Your task to perform on an android device: choose inbox layout in the gmail app Image 0: 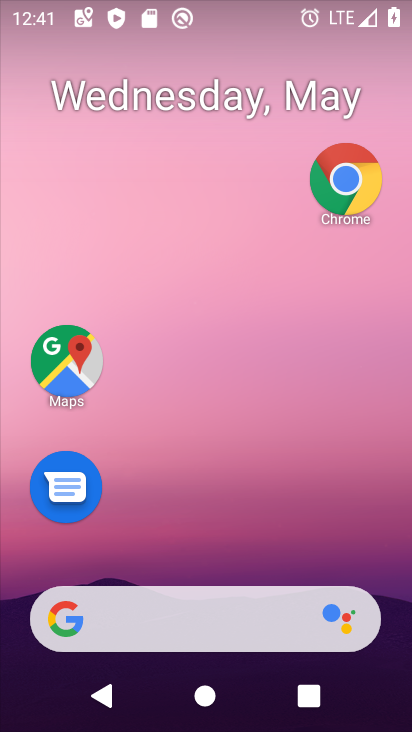
Step 0: click (249, 79)
Your task to perform on an android device: choose inbox layout in the gmail app Image 1: 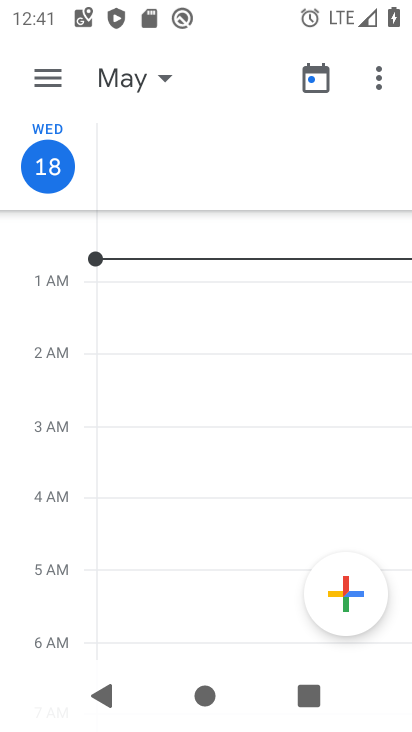
Step 1: drag from (215, 542) to (288, 109)
Your task to perform on an android device: choose inbox layout in the gmail app Image 2: 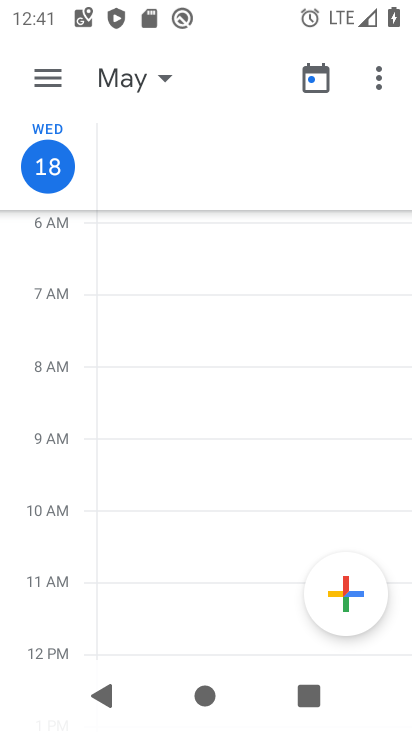
Step 2: press home button
Your task to perform on an android device: choose inbox layout in the gmail app Image 3: 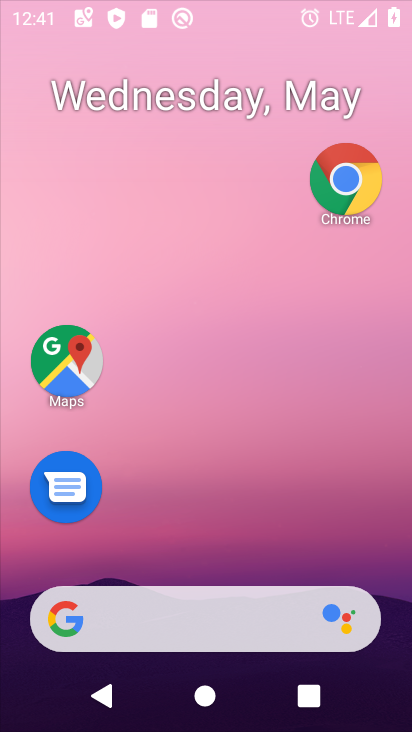
Step 3: drag from (198, 577) to (214, 75)
Your task to perform on an android device: choose inbox layout in the gmail app Image 4: 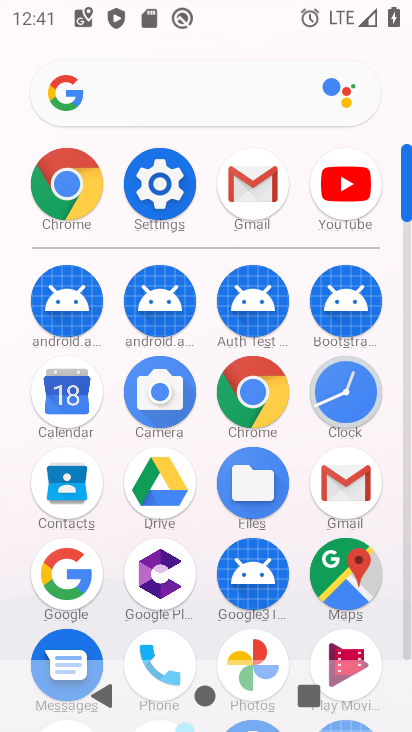
Step 4: click (341, 484)
Your task to perform on an android device: choose inbox layout in the gmail app Image 5: 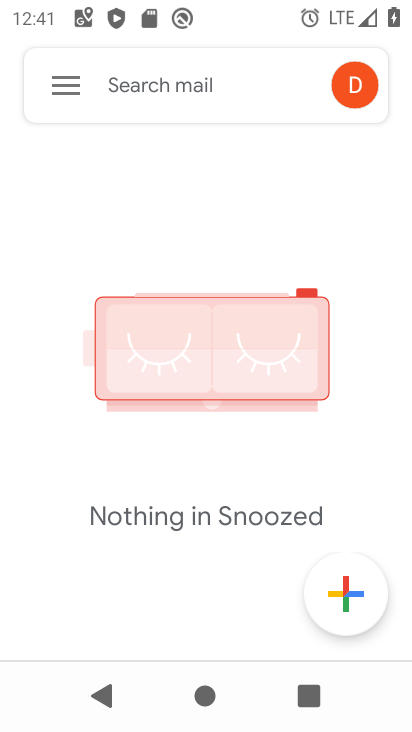
Step 5: click (49, 97)
Your task to perform on an android device: choose inbox layout in the gmail app Image 6: 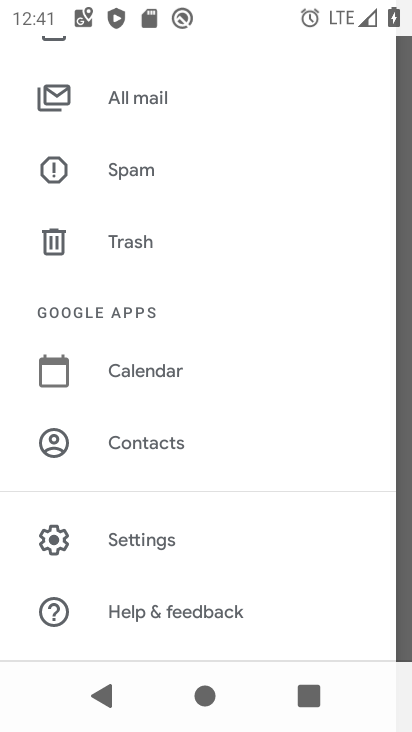
Step 6: drag from (158, 185) to (219, 723)
Your task to perform on an android device: choose inbox layout in the gmail app Image 7: 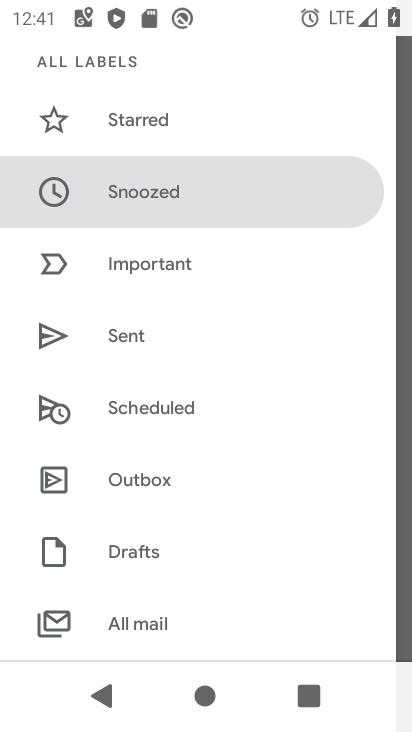
Step 7: drag from (159, 170) to (227, 570)
Your task to perform on an android device: choose inbox layout in the gmail app Image 8: 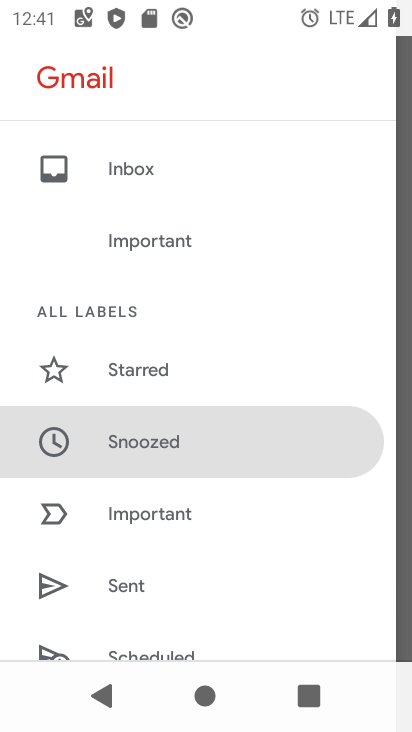
Step 8: click (146, 178)
Your task to perform on an android device: choose inbox layout in the gmail app Image 9: 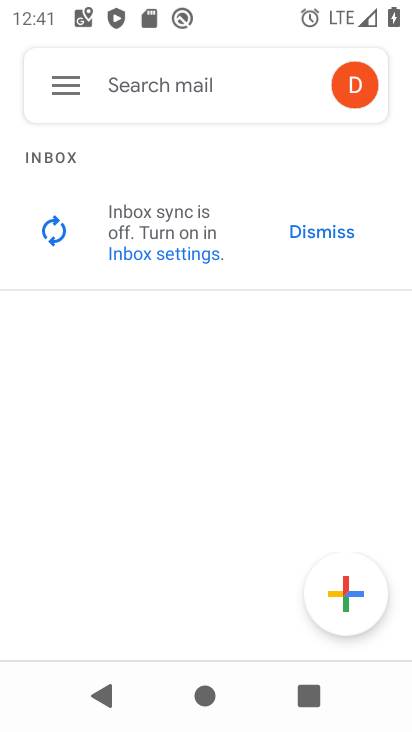
Step 9: click (321, 235)
Your task to perform on an android device: choose inbox layout in the gmail app Image 10: 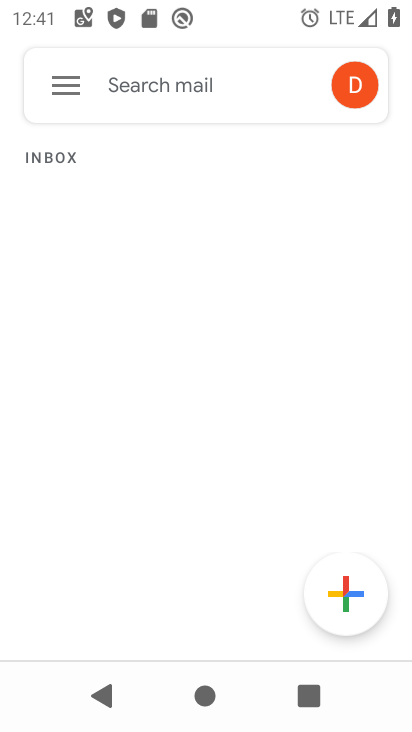
Step 10: click (48, 86)
Your task to perform on an android device: choose inbox layout in the gmail app Image 11: 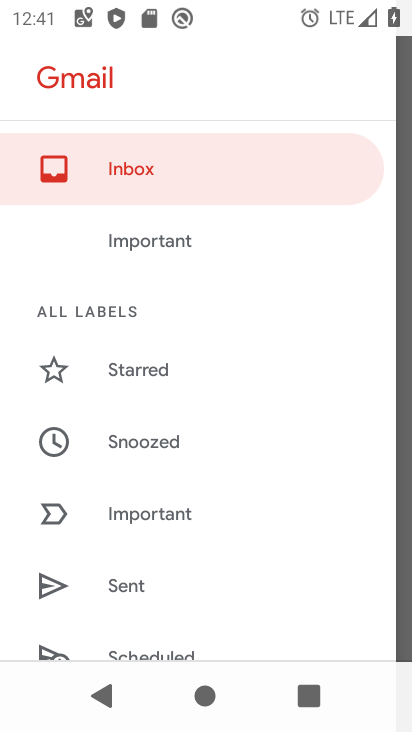
Step 11: click (136, 166)
Your task to perform on an android device: choose inbox layout in the gmail app Image 12: 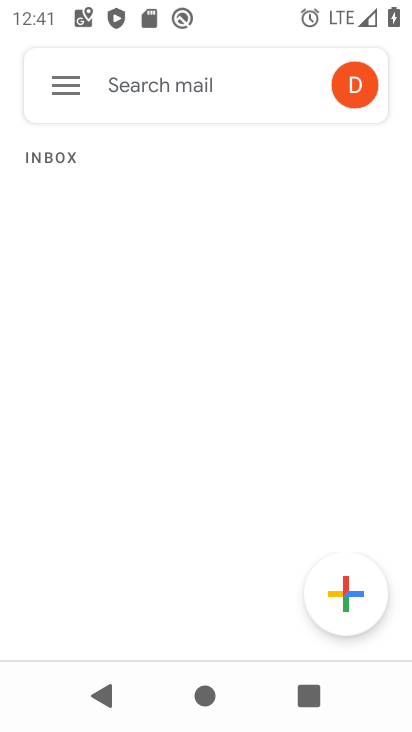
Step 12: task complete